Your task to perform on an android device: make emails show in primary in the gmail app Image 0: 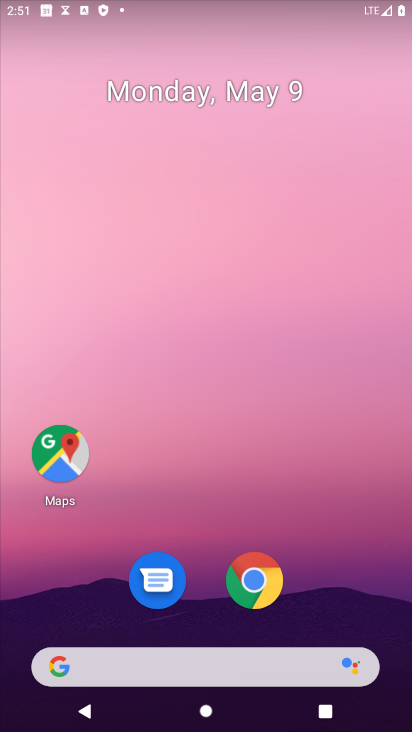
Step 0: drag from (332, 571) to (220, 163)
Your task to perform on an android device: make emails show in primary in the gmail app Image 1: 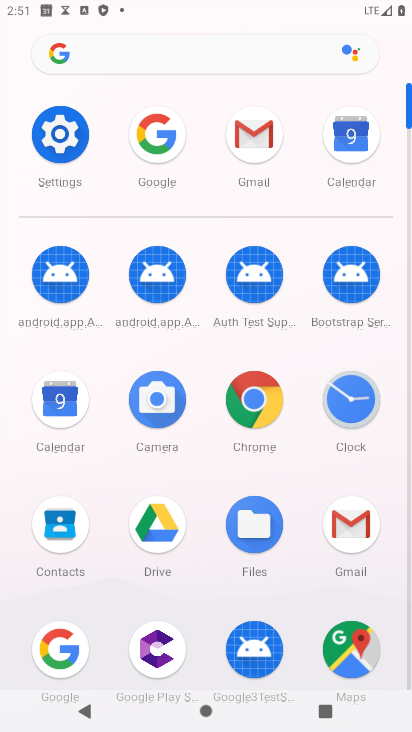
Step 1: click (356, 515)
Your task to perform on an android device: make emails show in primary in the gmail app Image 2: 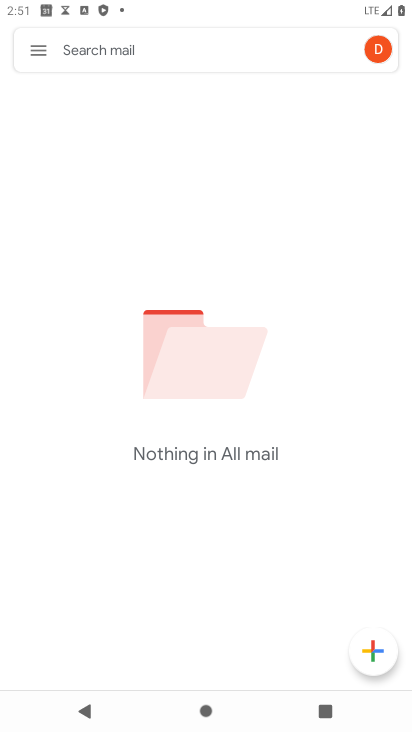
Step 2: click (40, 46)
Your task to perform on an android device: make emails show in primary in the gmail app Image 3: 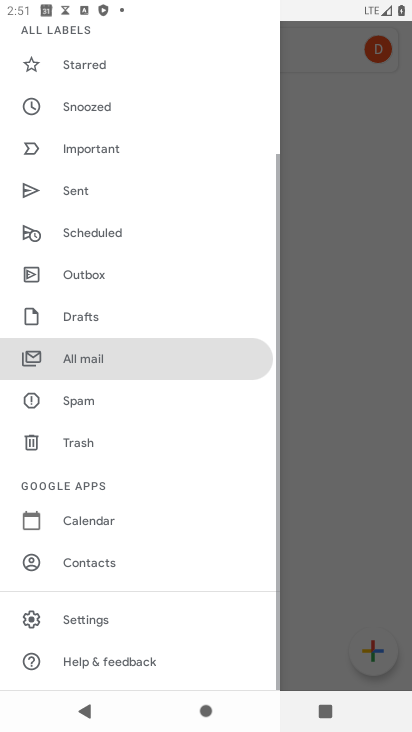
Step 3: drag from (137, 162) to (110, 611)
Your task to perform on an android device: make emails show in primary in the gmail app Image 4: 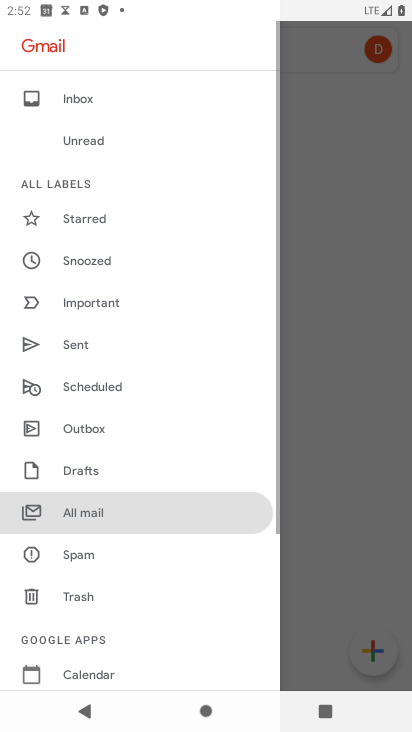
Step 4: drag from (155, 539) to (126, 135)
Your task to perform on an android device: make emails show in primary in the gmail app Image 5: 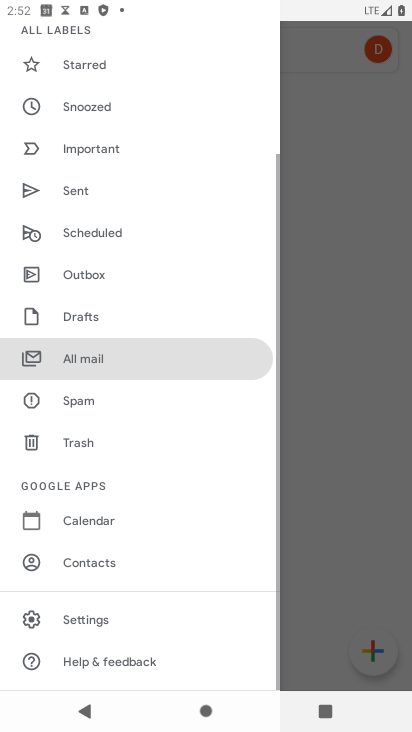
Step 5: click (124, 623)
Your task to perform on an android device: make emails show in primary in the gmail app Image 6: 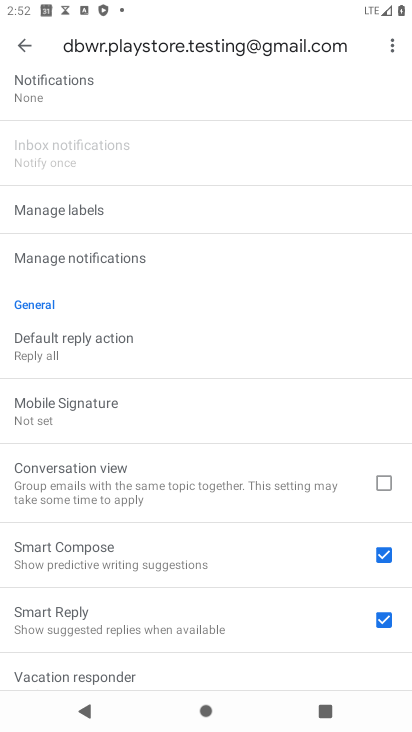
Step 6: task complete